Your task to perform on an android device: check storage Image 0: 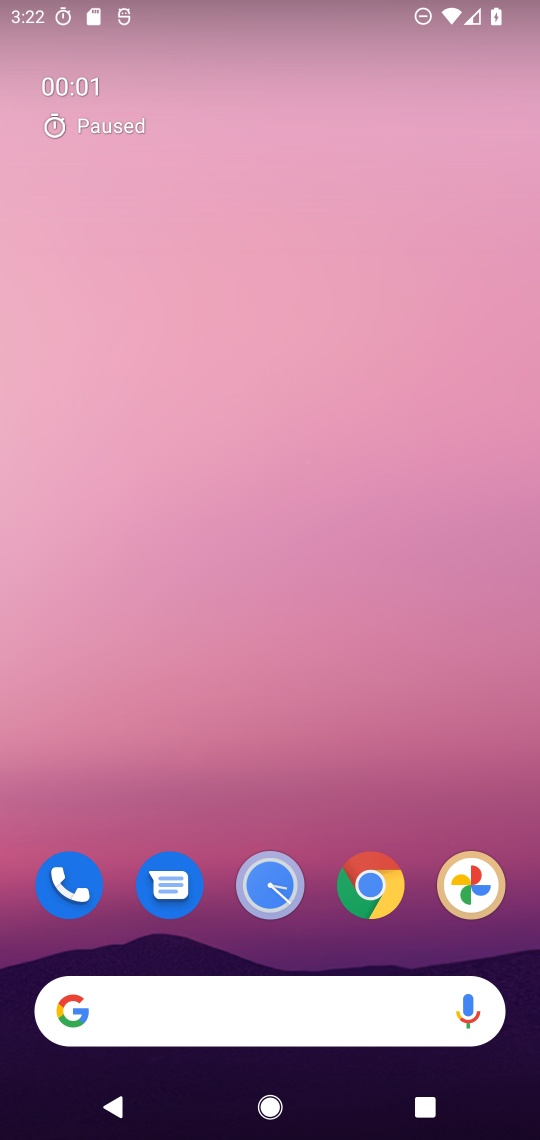
Step 0: drag from (241, 1035) to (223, 370)
Your task to perform on an android device: check storage Image 1: 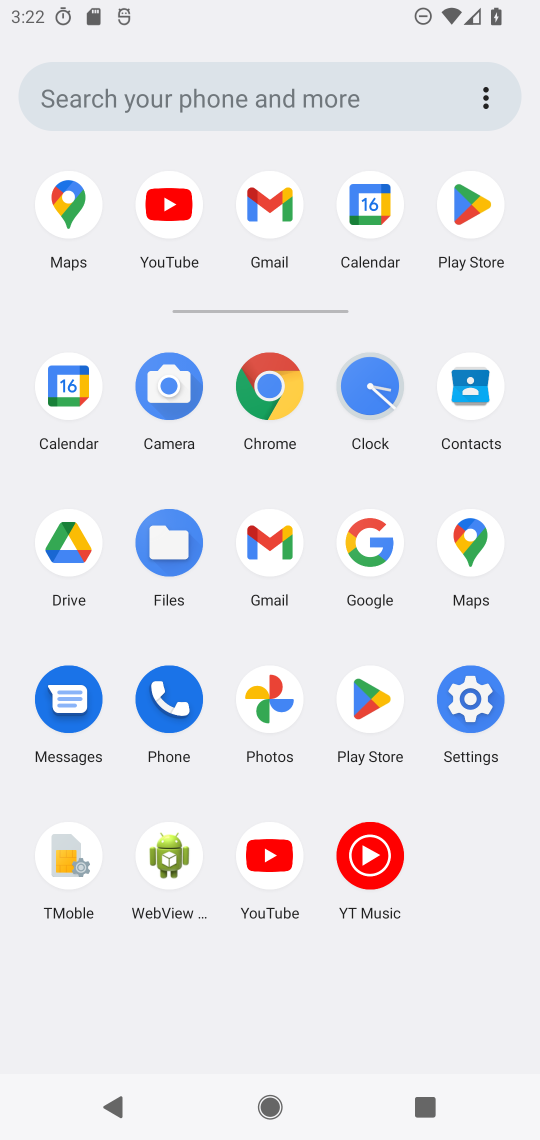
Step 1: click (457, 680)
Your task to perform on an android device: check storage Image 2: 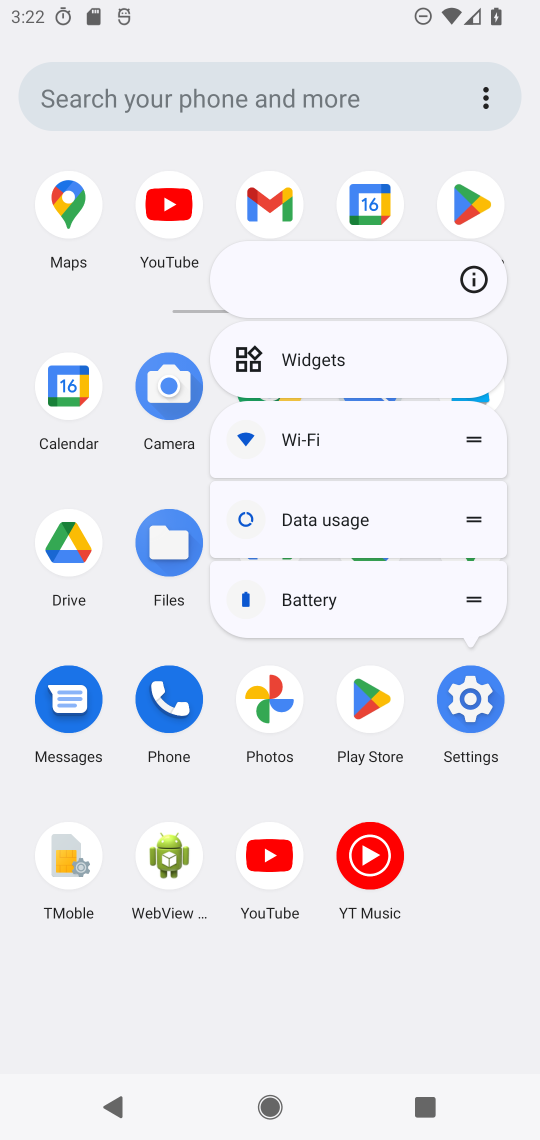
Step 2: click (457, 685)
Your task to perform on an android device: check storage Image 3: 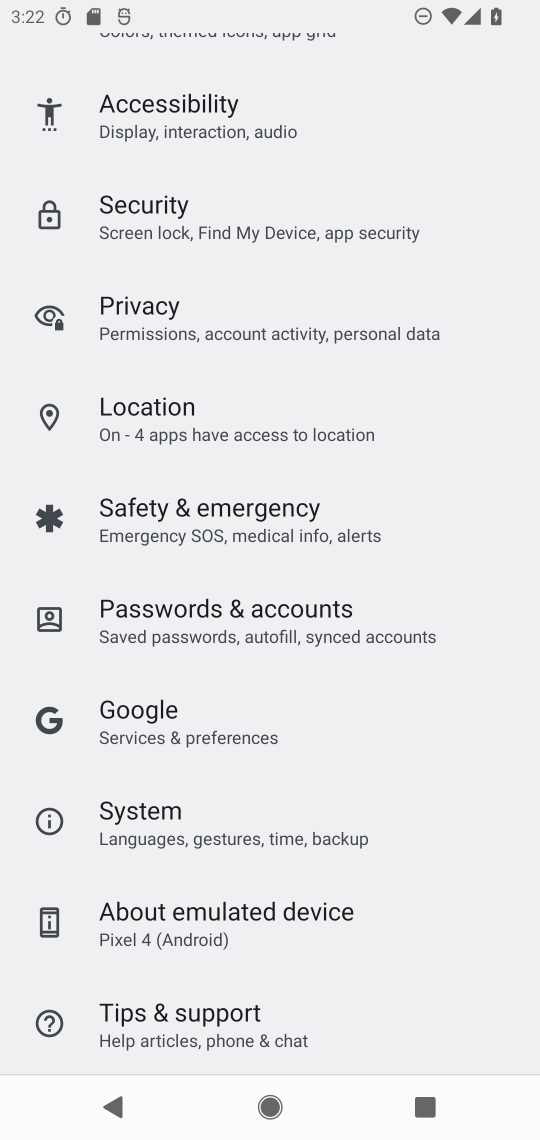
Step 3: drag from (222, 188) to (258, 902)
Your task to perform on an android device: check storage Image 4: 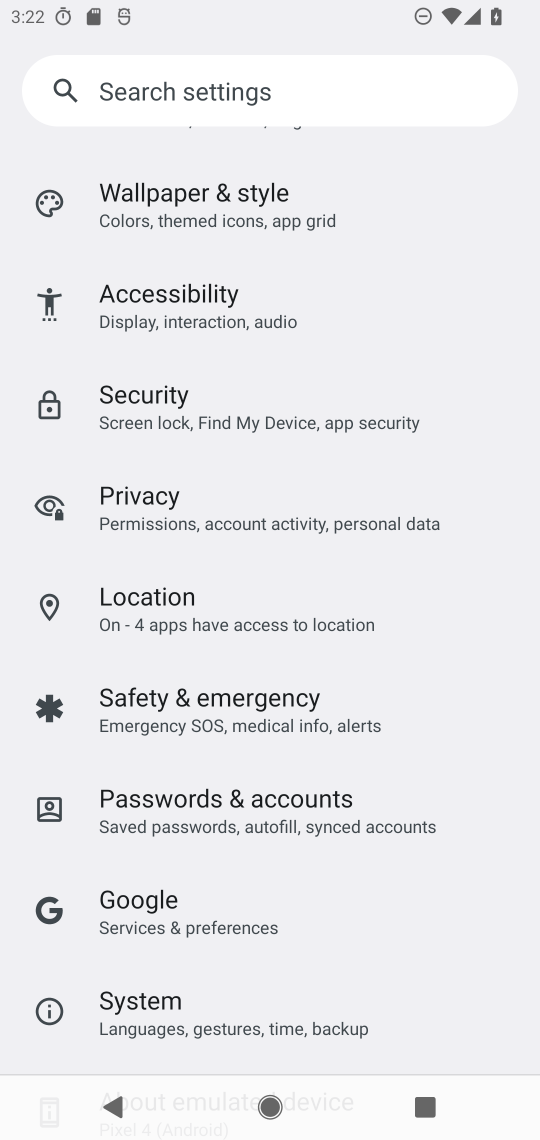
Step 4: drag from (211, 225) to (214, 750)
Your task to perform on an android device: check storage Image 5: 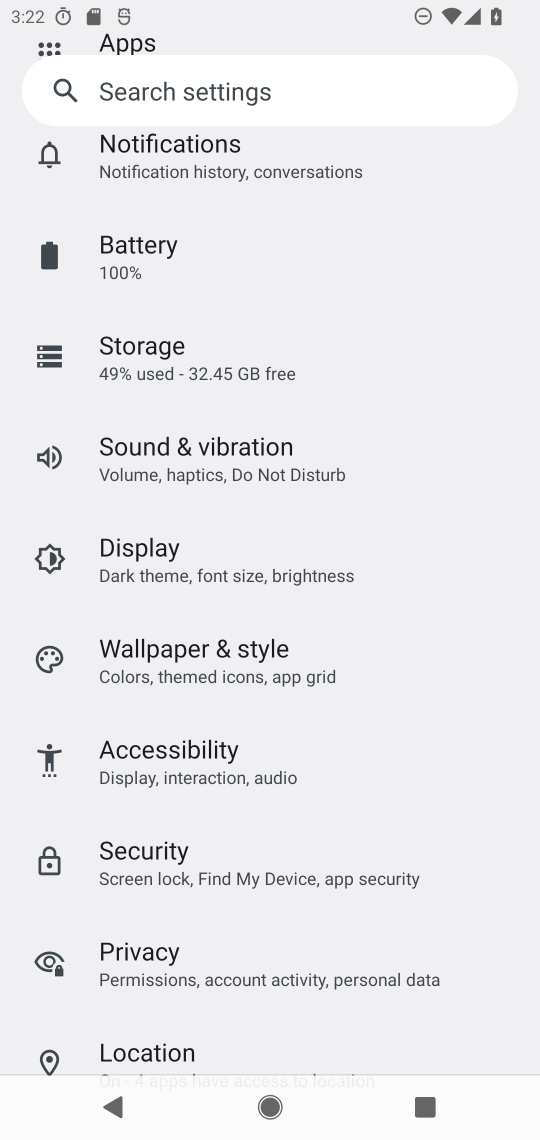
Step 5: click (183, 357)
Your task to perform on an android device: check storage Image 6: 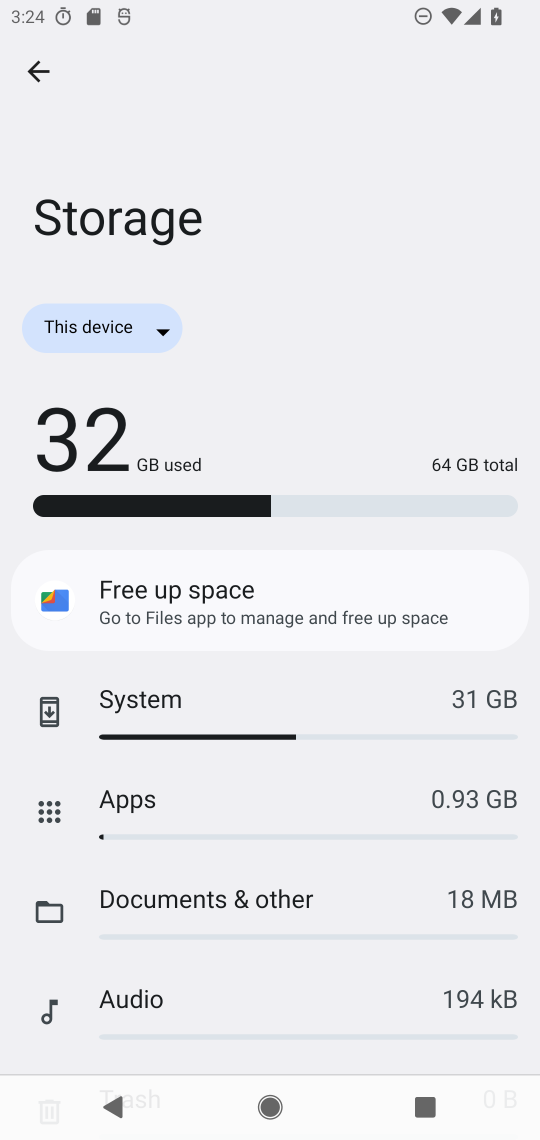
Step 6: task complete